Your task to perform on an android device: turn off notifications settings in the gmail app Image 0: 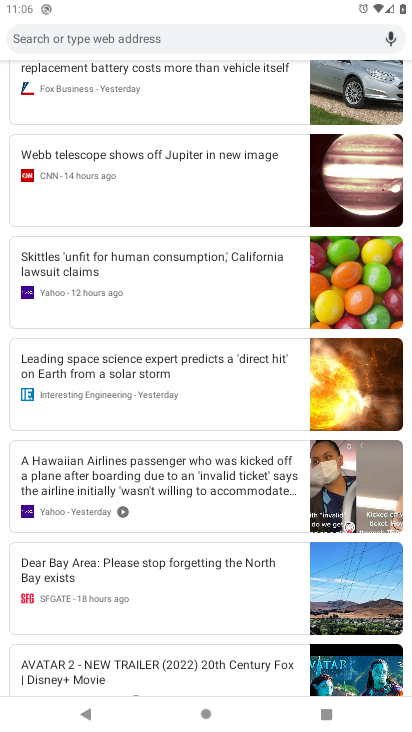
Step 0: press home button
Your task to perform on an android device: turn off notifications settings in the gmail app Image 1: 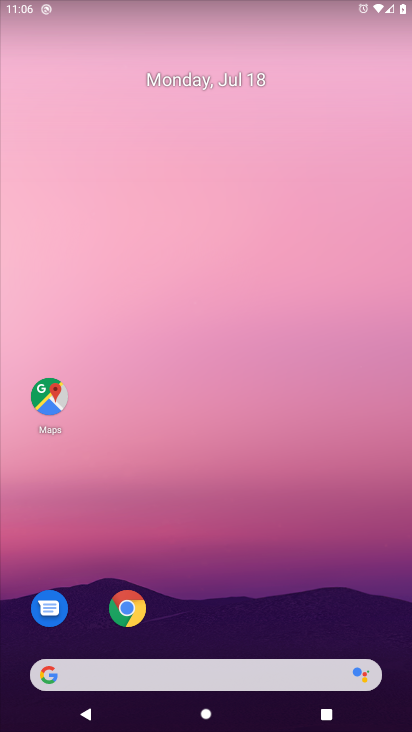
Step 1: drag from (73, 647) to (210, 241)
Your task to perform on an android device: turn off notifications settings in the gmail app Image 2: 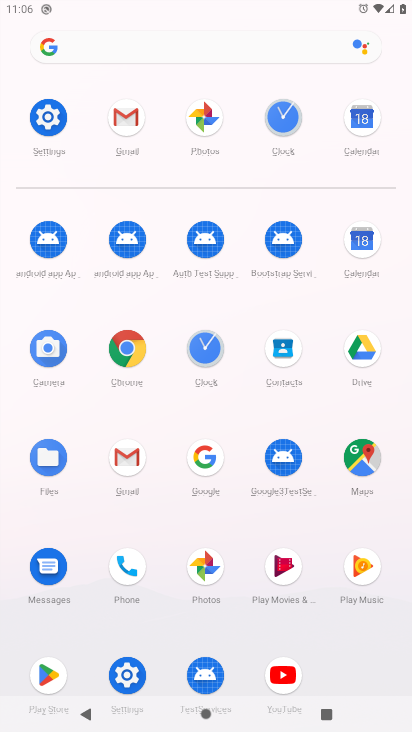
Step 2: click (128, 457)
Your task to perform on an android device: turn off notifications settings in the gmail app Image 3: 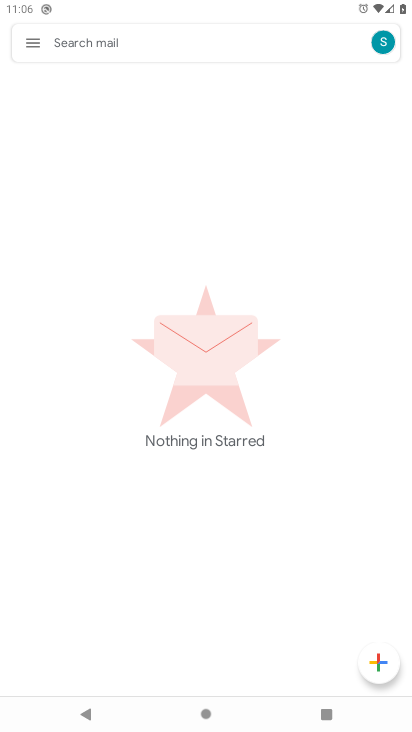
Step 3: click (27, 33)
Your task to perform on an android device: turn off notifications settings in the gmail app Image 4: 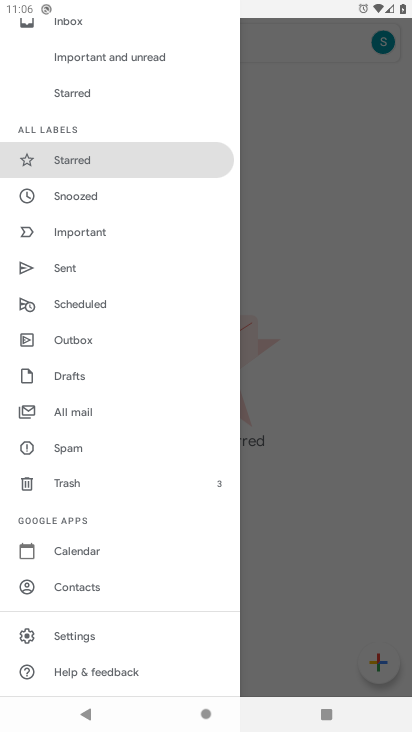
Step 4: click (78, 638)
Your task to perform on an android device: turn off notifications settings in the gmail app Image 5: 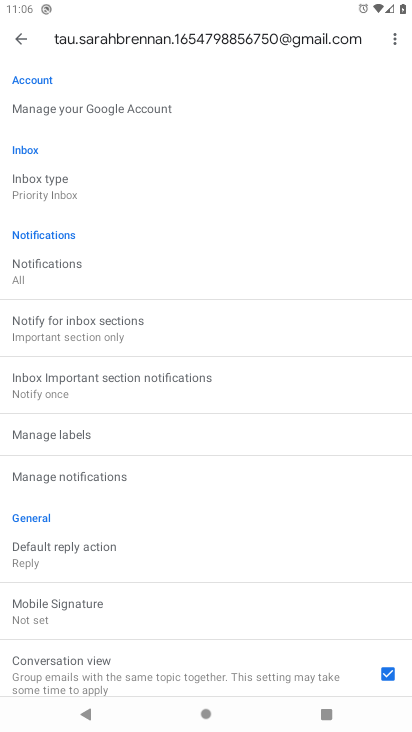
Step 5: click (71, 277)
Your task to perform on an android device: turn off notifications settings in the gmail app Image 6: 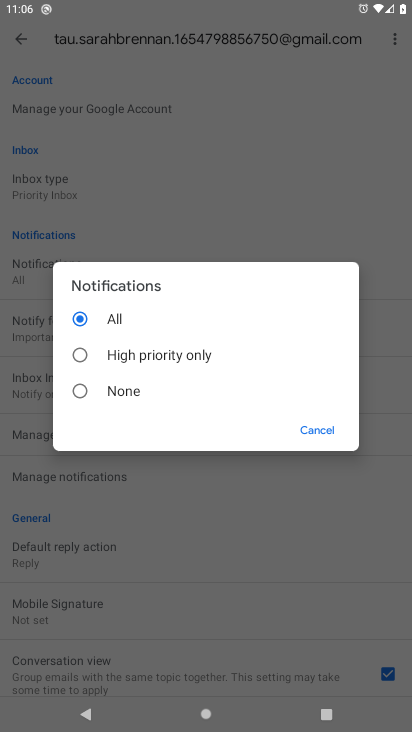
Step 6: task complete